Your task to perform on an android device: open app "Paramount+ | Peak Streaming" (install if not already installed) Image 0: 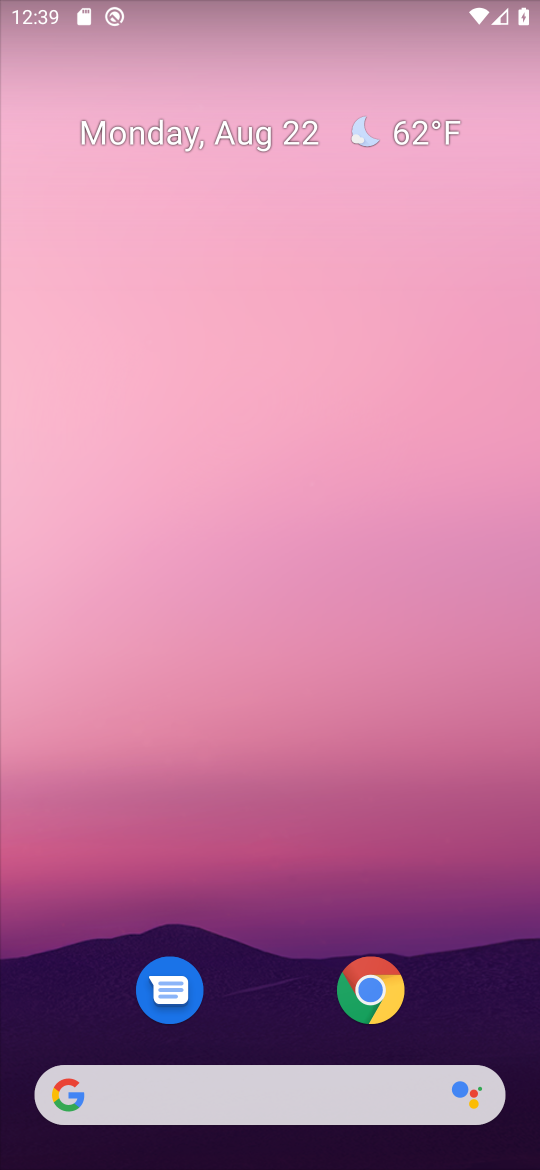
Step 0: drag from (255, 926) to (360, 215)
Your task to perform on an android device: open app "Paramount+ | Peak Streaming" (install if not already installed) Image 1: 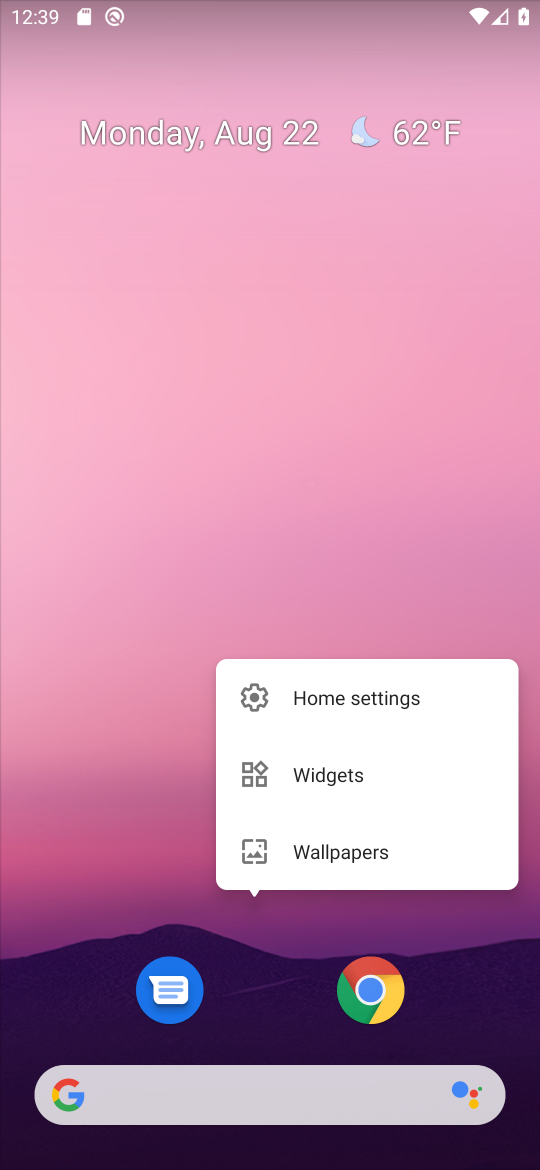
Step 1: click (310, 539)
Your task to perform on an android device: open app "Paramount+ | Peak Streaming" (install if not already installed) Image 2: 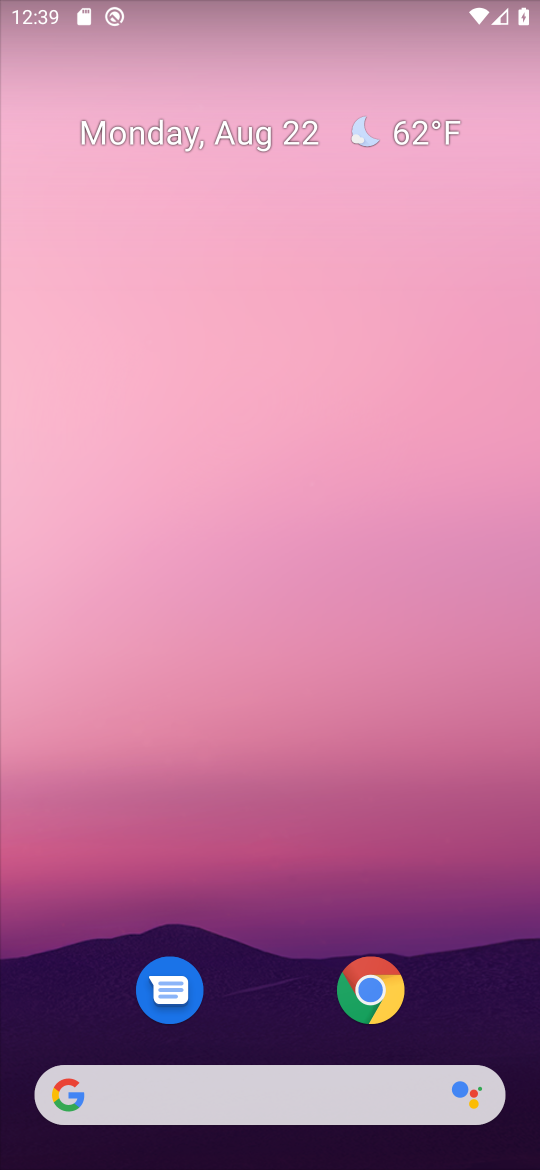
Step 2: drag from (253, 694) to (274, 108)
Your task to perform on an android device: open app "Paramount+ | Peak Streaming" (install if not already installed) Image 3: 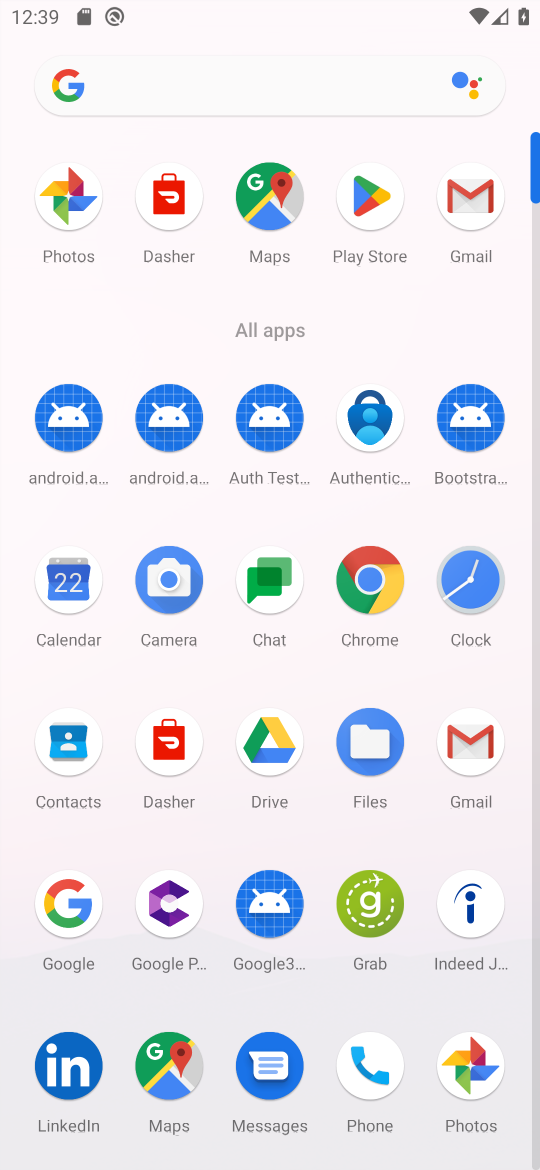
Step 3: click (373, 201)
Your task to perform on an android device: open app "Paramount+ | Peak Streaming" (install if not already installed) Image 4: 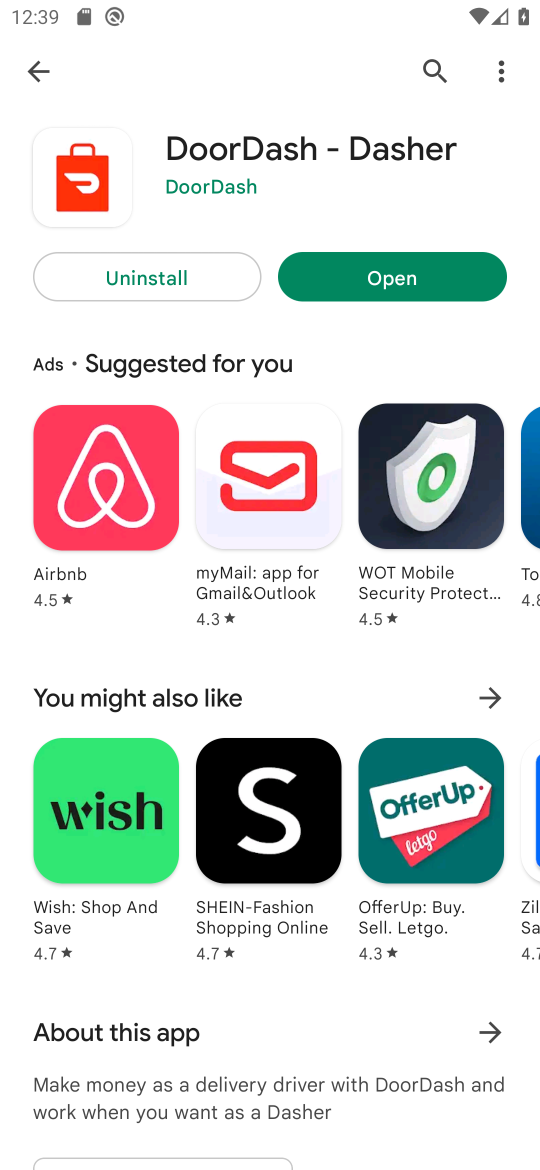
Step 4: click (441, 66)
Your task to perform on an android device: open app "Paramount+ | Peak Streaming" (install if not already installed) Image 5: 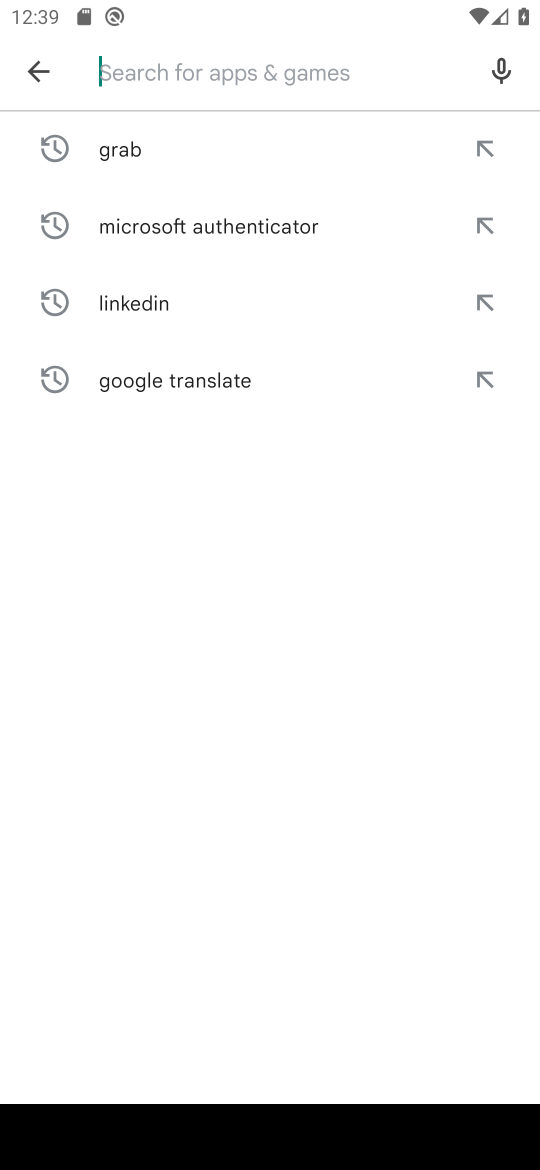
Step 5: type "Paramount+ | Peak Streaming"
Your task to perform on an android device: open app "Paramount+ | Peak Streaming" (install if not already installed) Image 6: 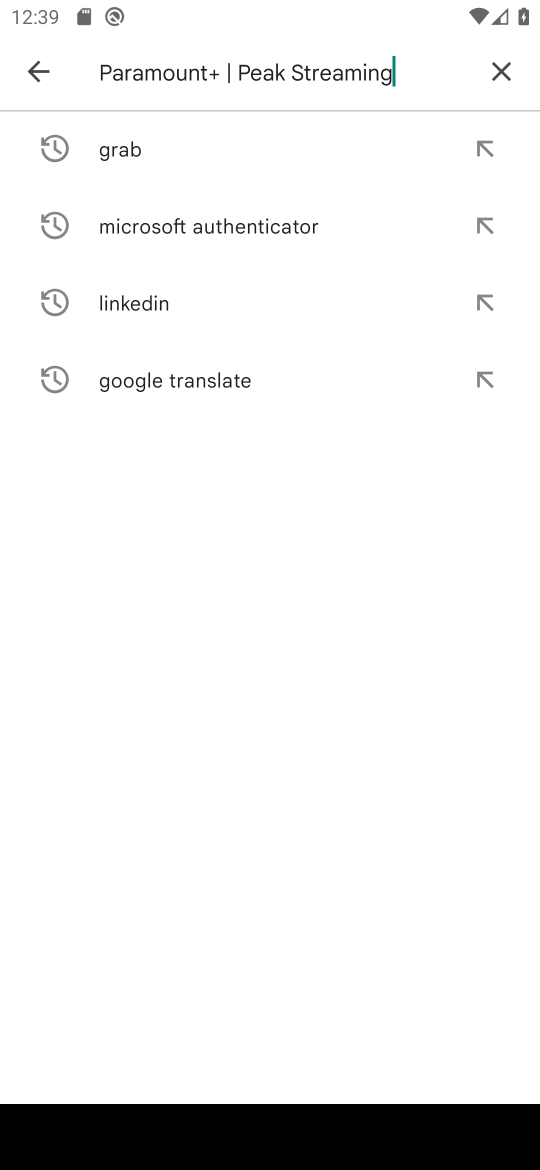
Step 6: type ""
Your task to perform on an android device: open app "Paramount+ | Peak Streaming" (install if not already installed) Image 7: 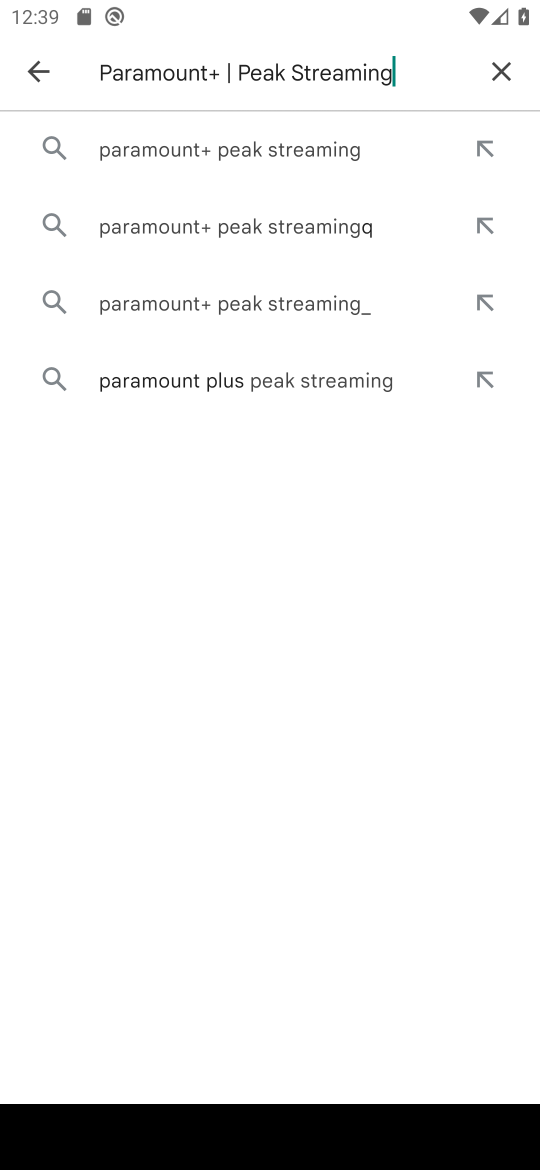
Step 7: click (256, 153)
Your task to perform on an android device: open app "Paramount+ | Peak Streaming" (install if not already installed) Image 8: 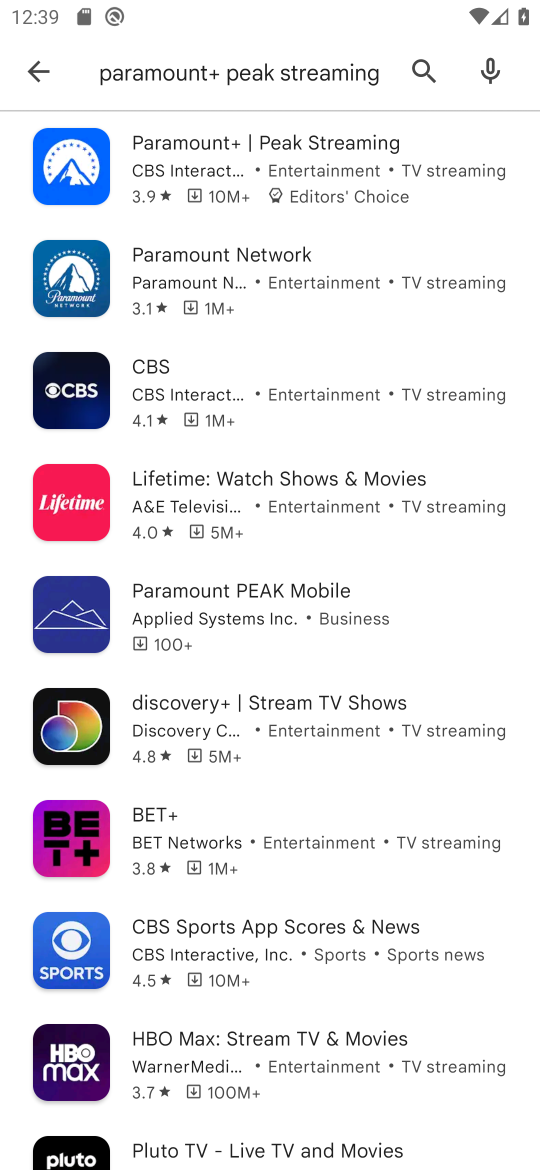
Step 8: click (309, 161)
Your task to perform on an android device: open app "Paramount+ | Peak Streaming" (install if not already installed) Image 9: 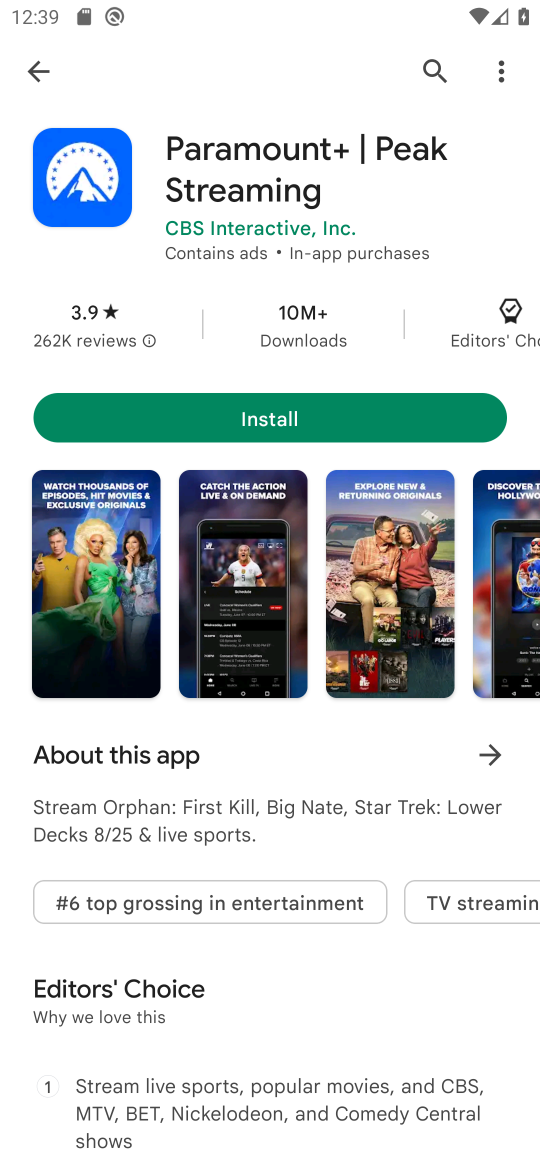
Step 9: click (284, 429)
Your task to perform on an android device: open app "Paramount+ | Peak Streaming" (install if not already installed) Image 10: 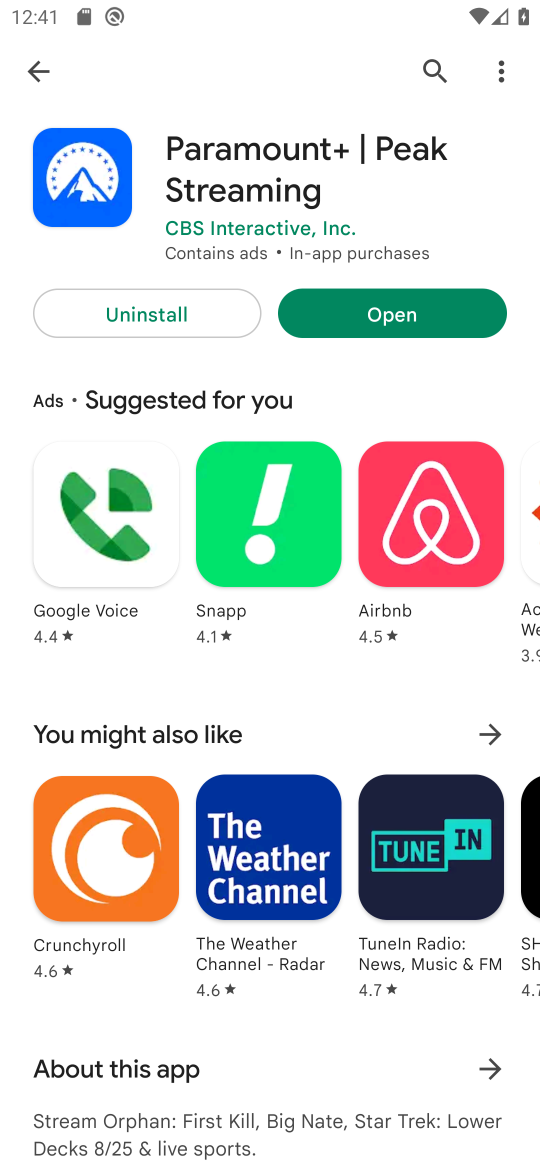
Step 10: click (378, 313)
Your task to perform on an android device: open app "Paramount+ | Peak Streaming" (install if not already installed) Image 11: 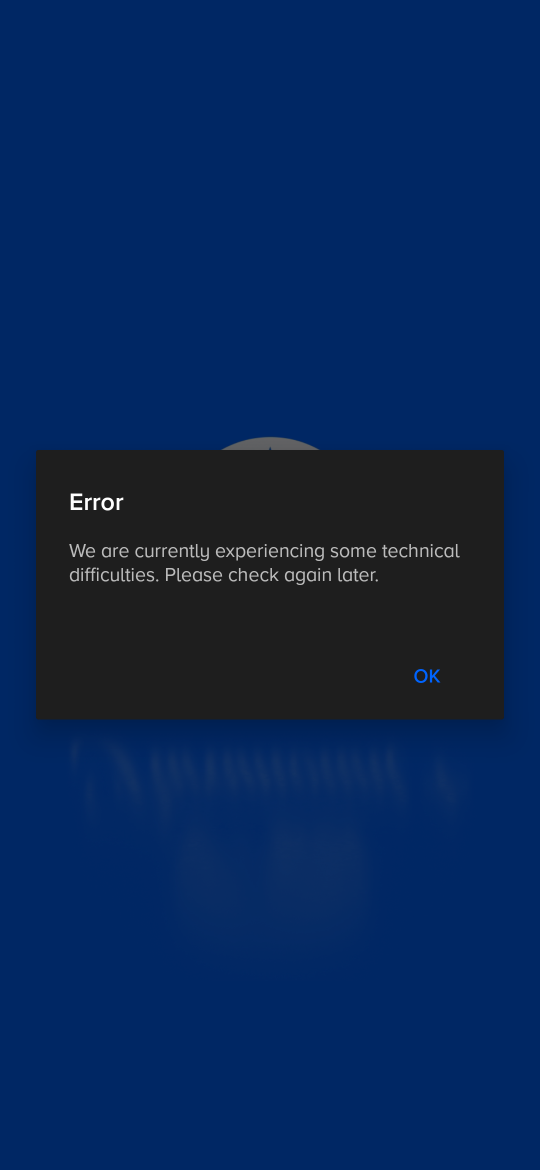
Step 11: task complete